Your task to perform on an android device: open app "Mercado Libre" Image 0: 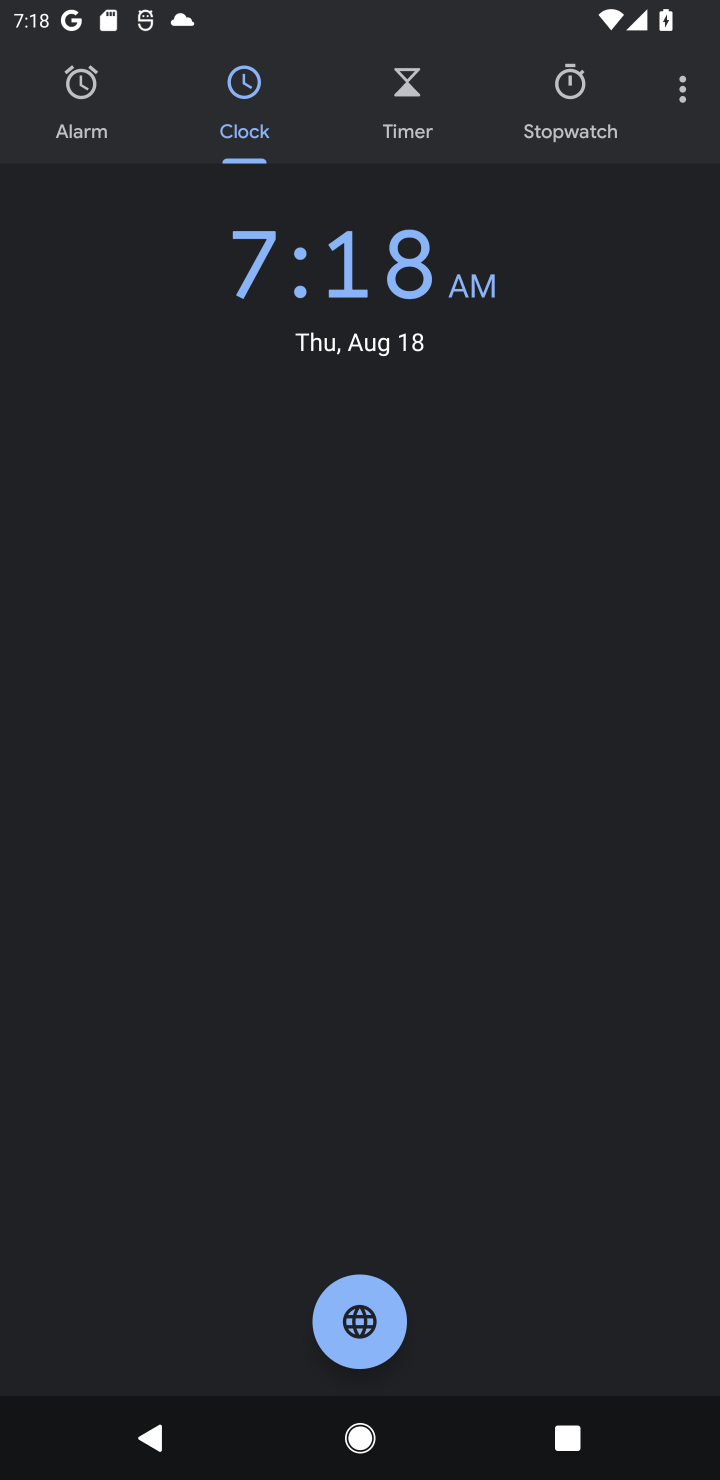
Step 0: press home button
Your task to perform on an android device: open app "Mercado Libre" Image 1: 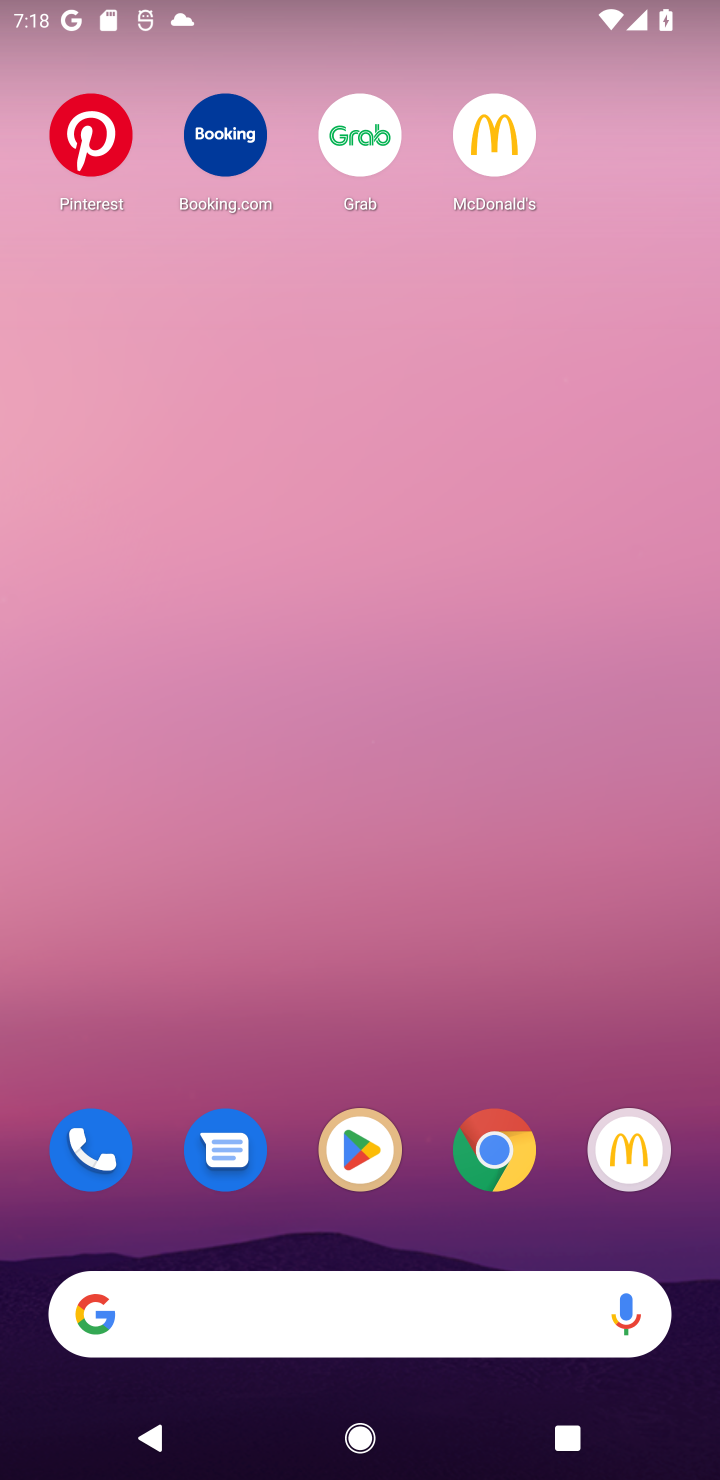
Step 1: drag from (330, 1233) to (272, 71)
Your task to perform on an android device: open app "Mercado Libre" Image 2: 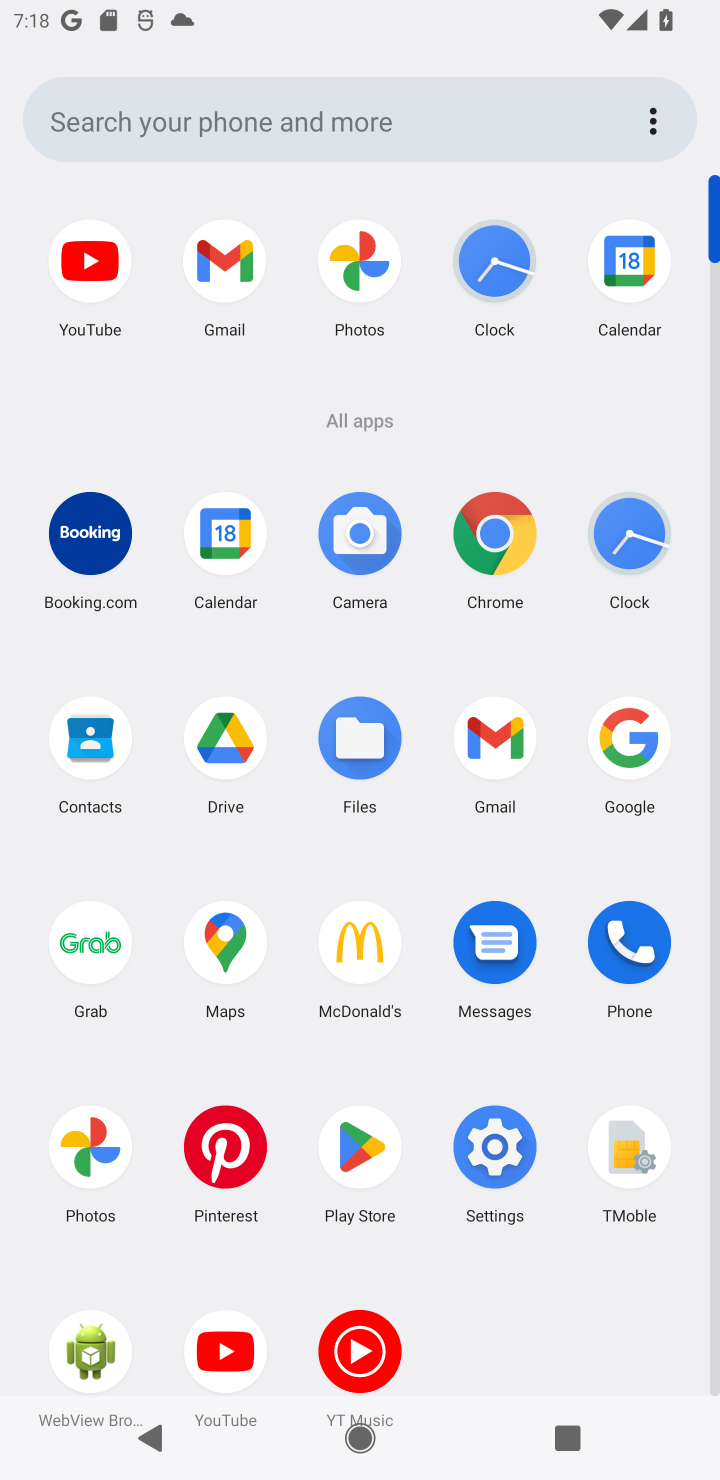
Step 2: click (375, 1168)
Your task to perform on an android device: open app "Mercado Libre" Image 3: 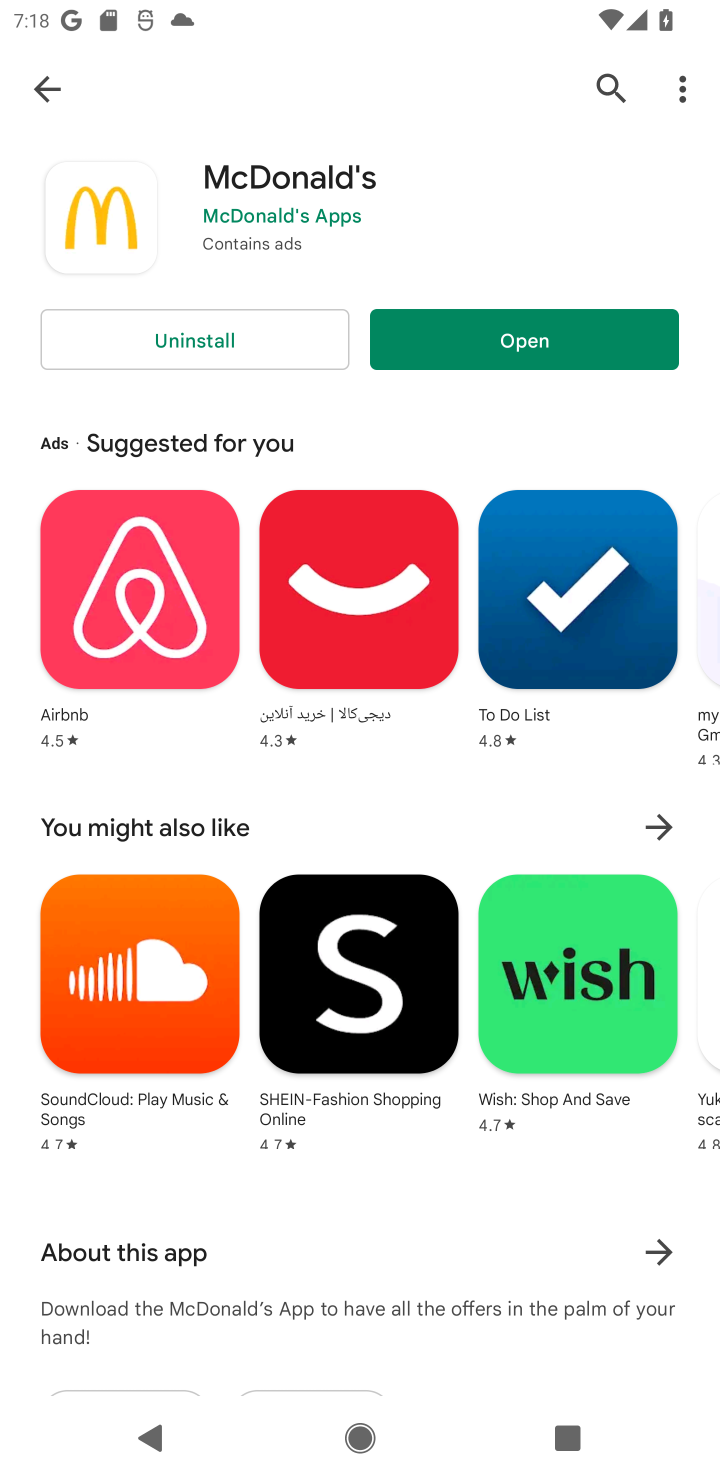
Step 3: click (55, 73)
Your task to perform on an android device: open app "Mercado Libre" Image 4: 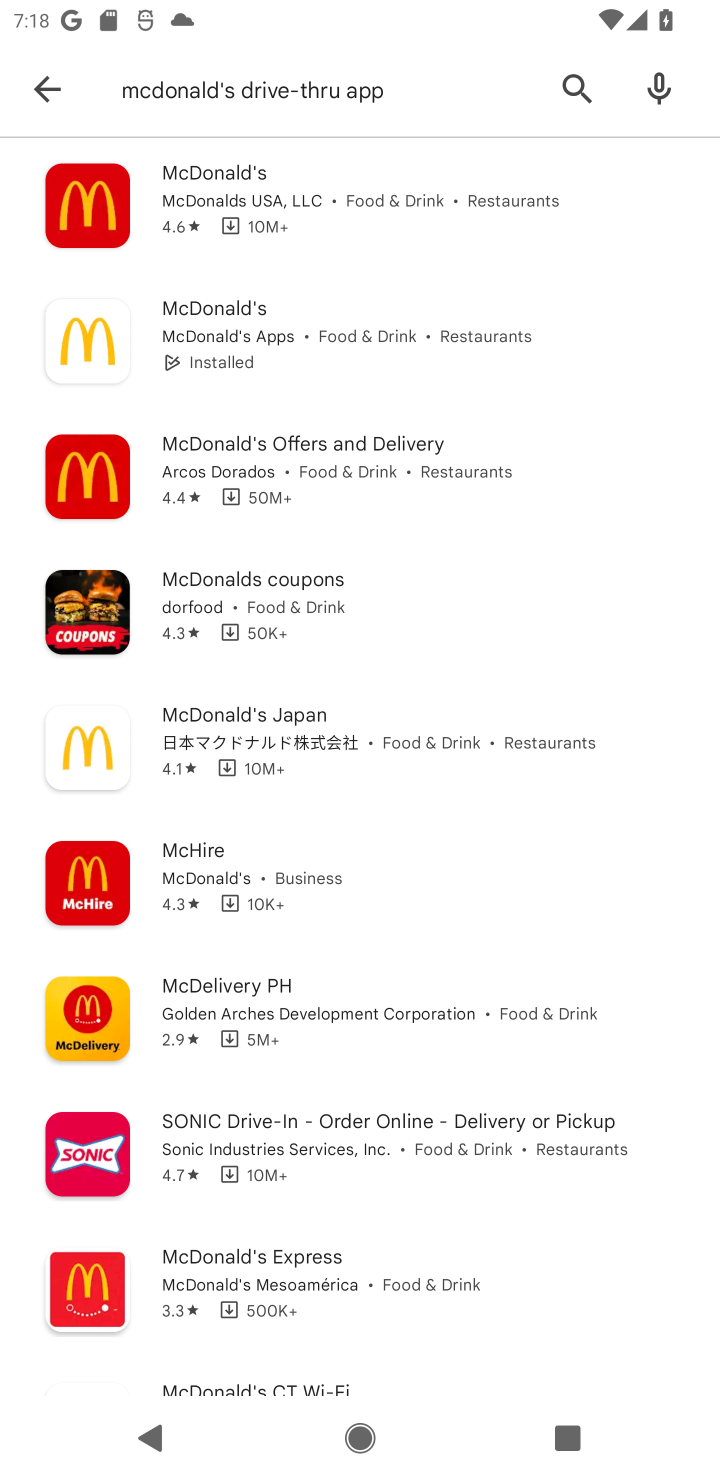
Step 4: click (51, 77)
Your task to perform on an android device: open app "Mercado Libre" Image 5: 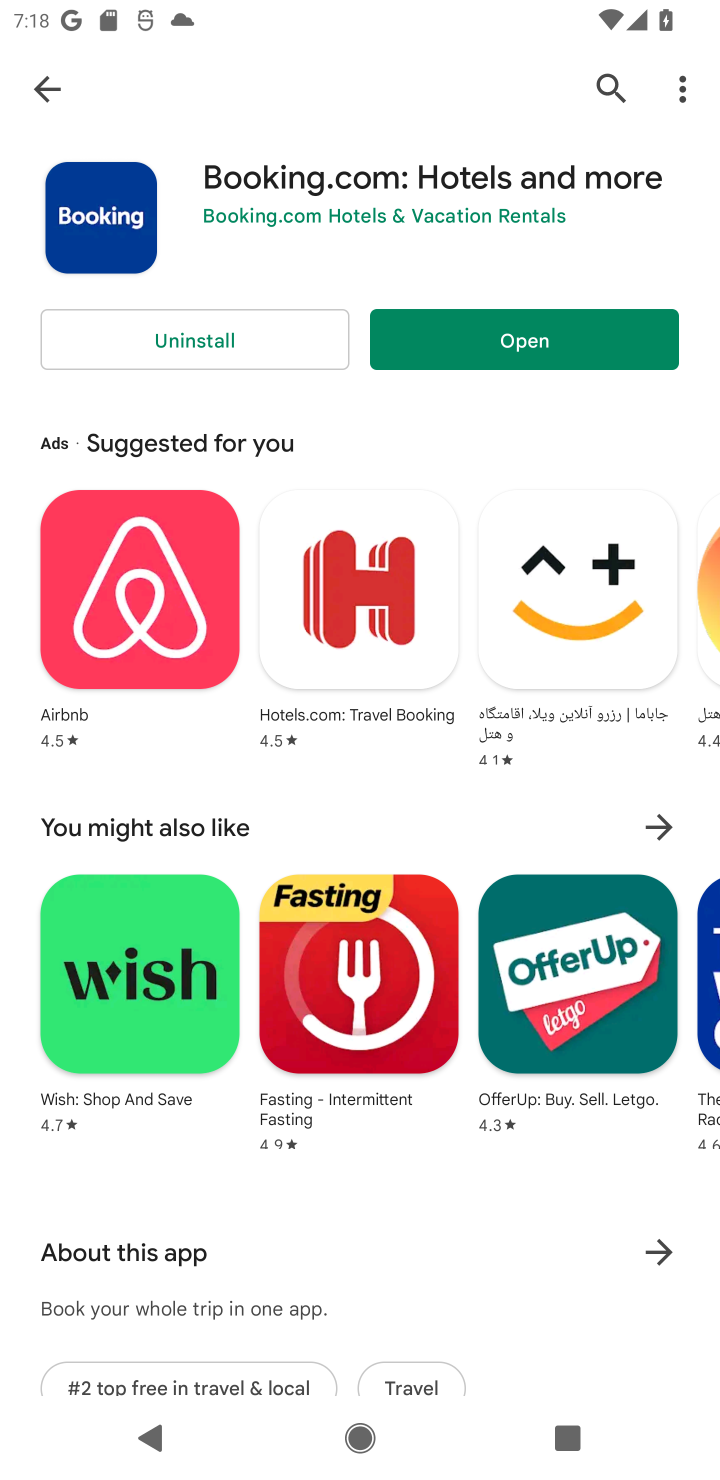
Step 5: click (46, 80)
Your task to perform on an android device: open app "Mercado Libre" Image 6: 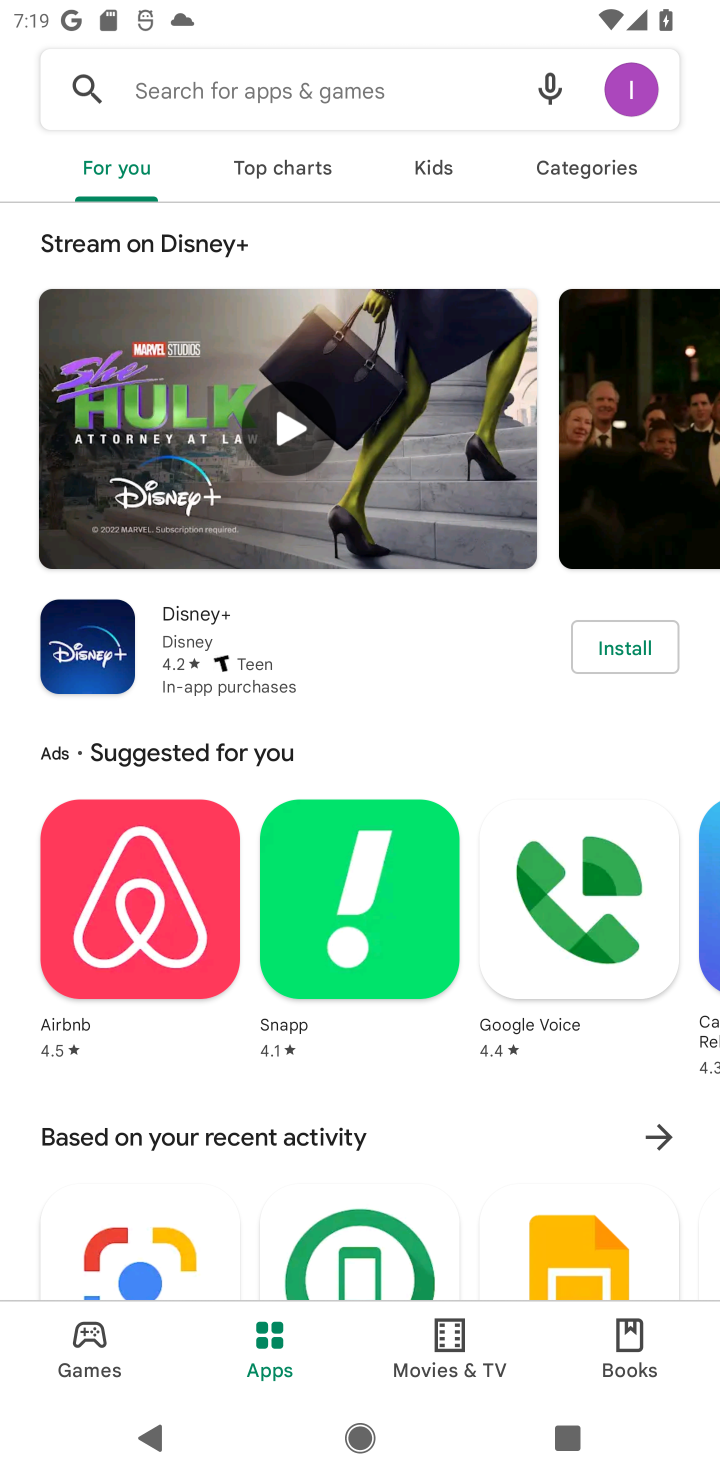
Step 6: click (199, 94)
Your task to perform on an android device: open app "Mercado Libre" Image 7: 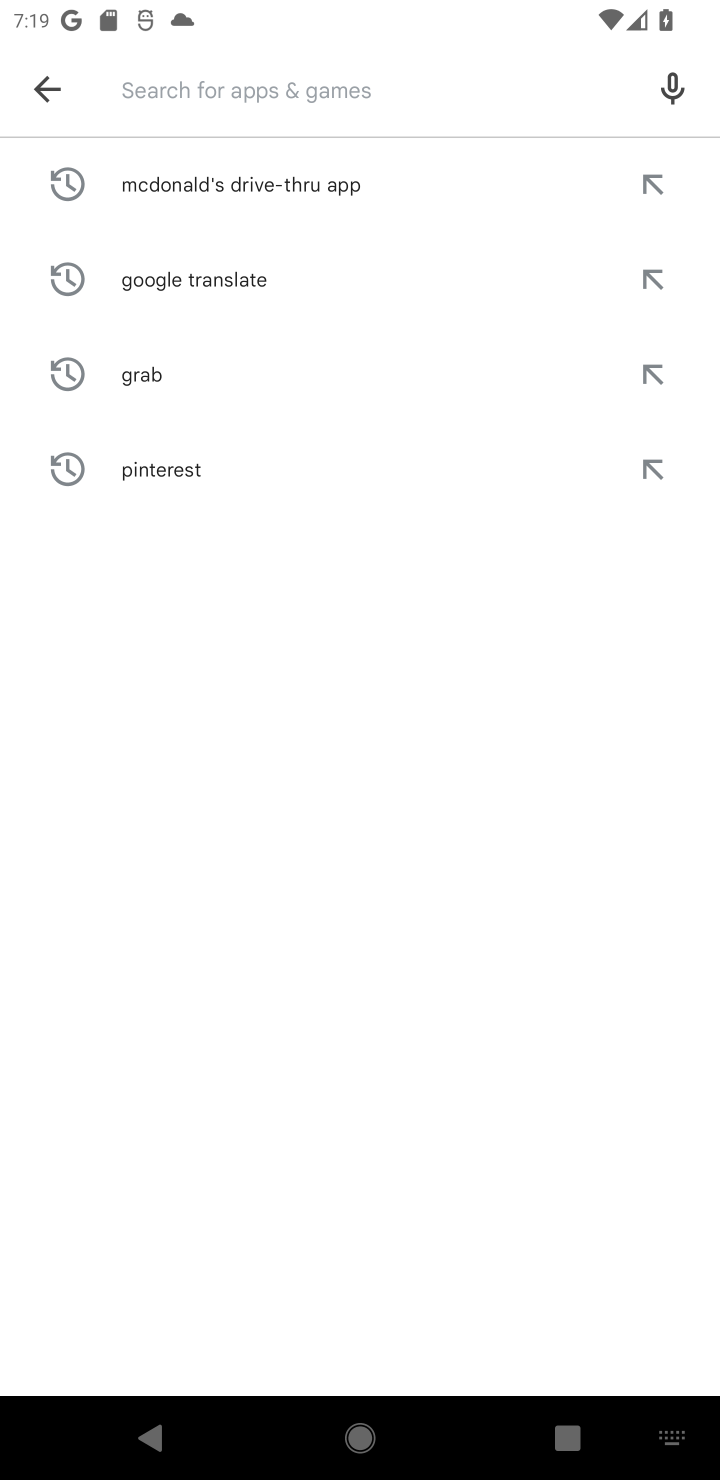
Step 7: type "Mercado Libre"
Your task to perform on an android device: open app "Mercado Libre" Image 8: 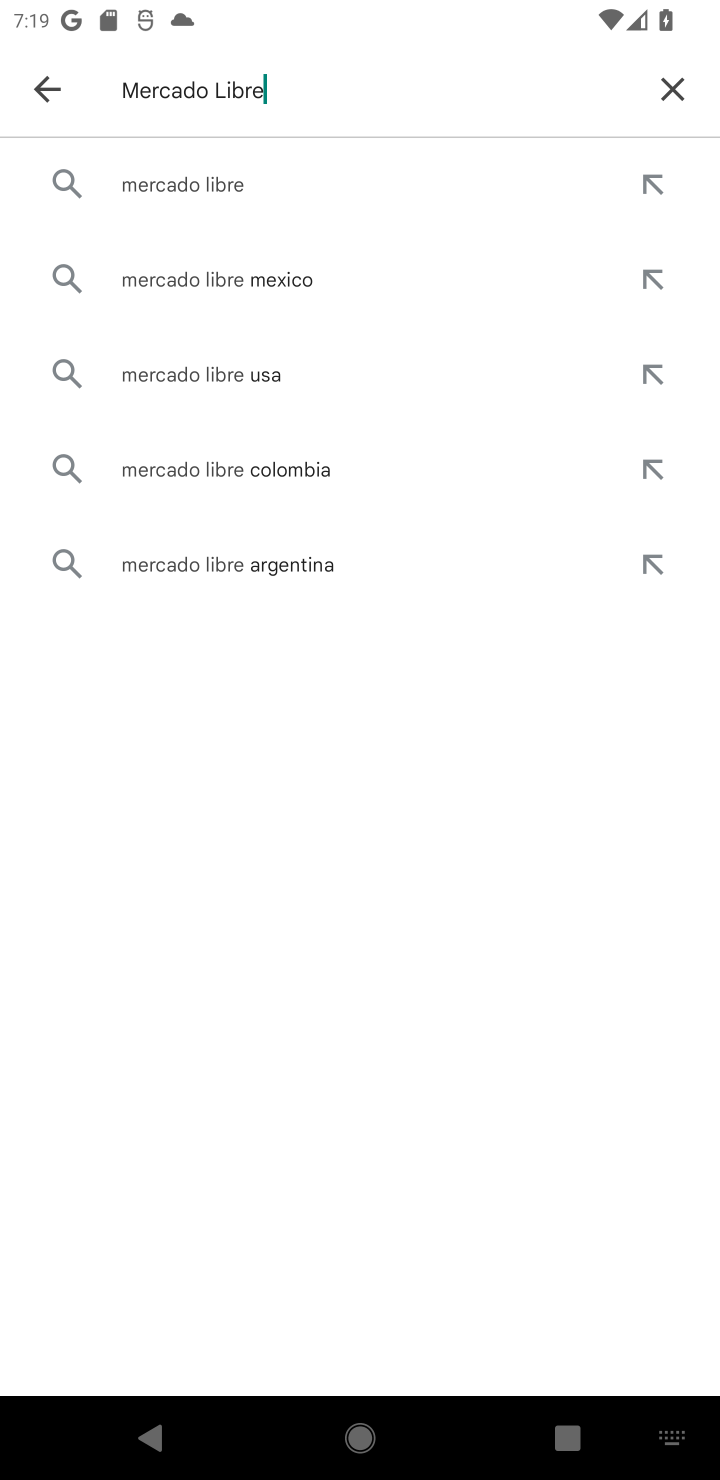
Step 8: click (176, 168)
Your task to perform on an android device: open app "Mercado Libre" Image 9: 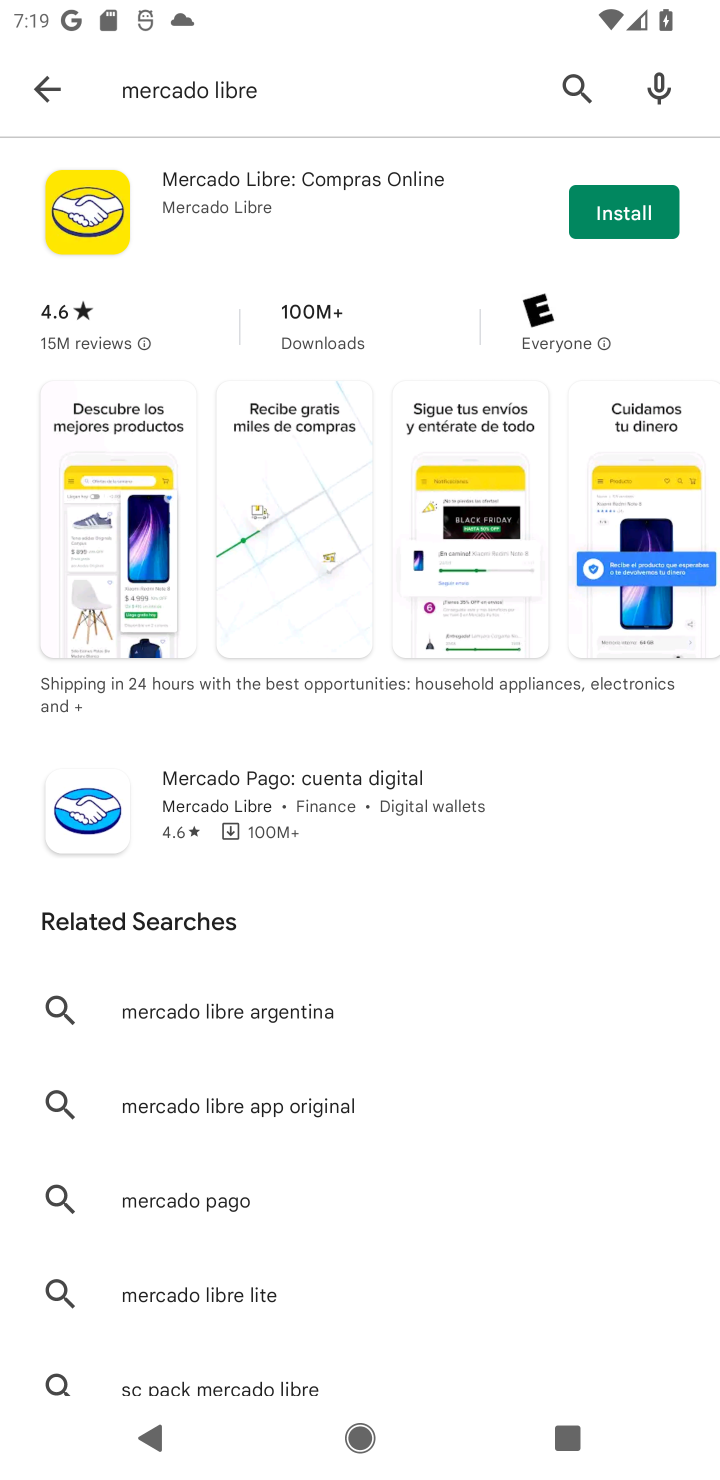
Step 9: click (614, 221)
Your task to perform on an android device: open app "Mercado Libre" Image 10: 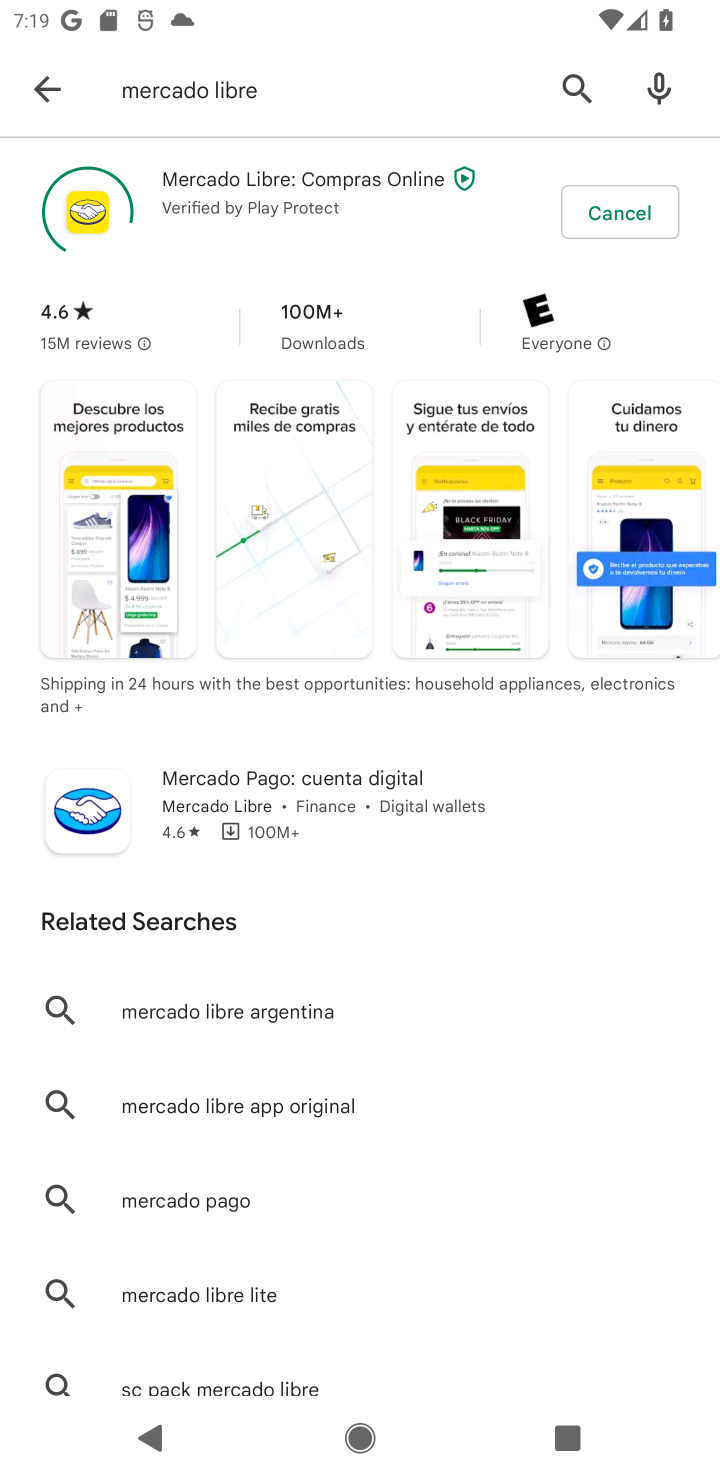
Step 10: click (668, 187)
Your task to perform on an android device: open app "Mercado Libre" Image 11: 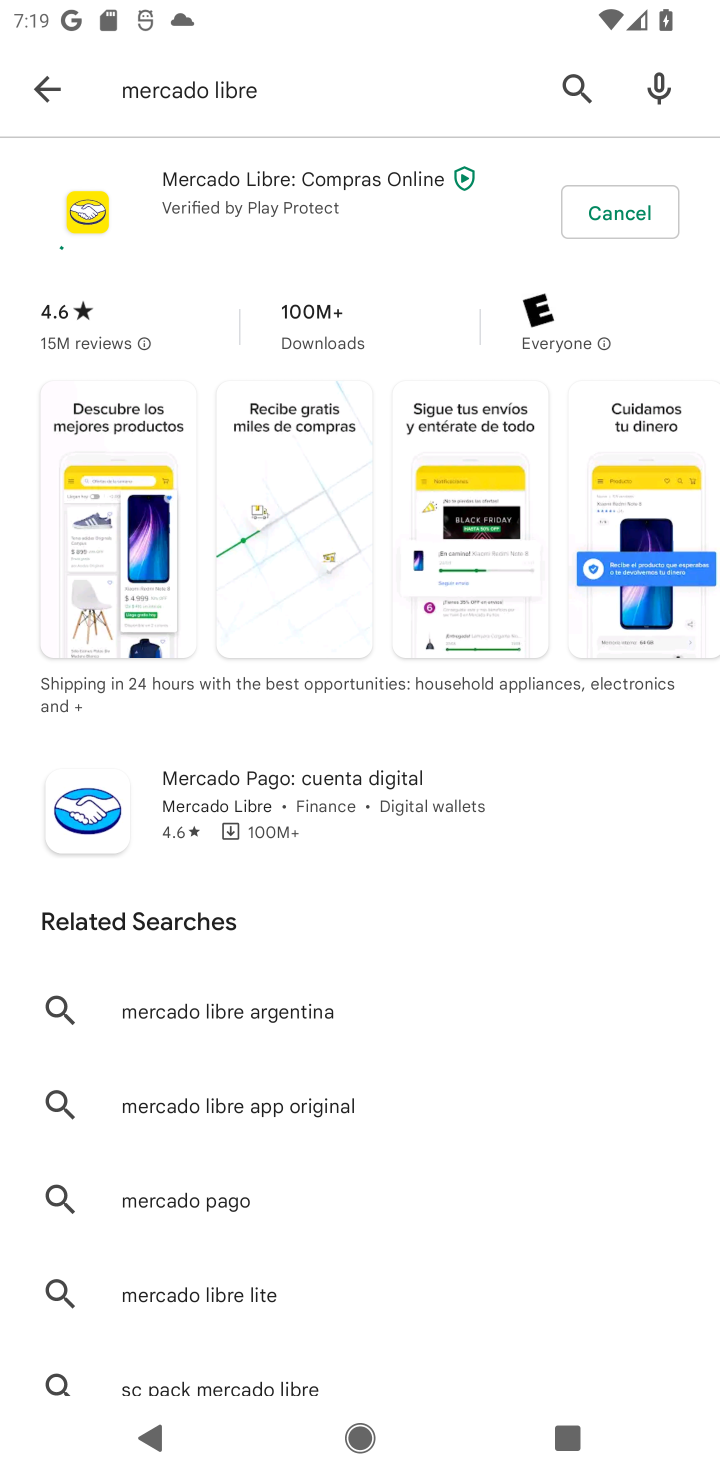
Step 11: click (633, 208)
Your task to perform on an android device: open app "Mercado Libre" Image 12: 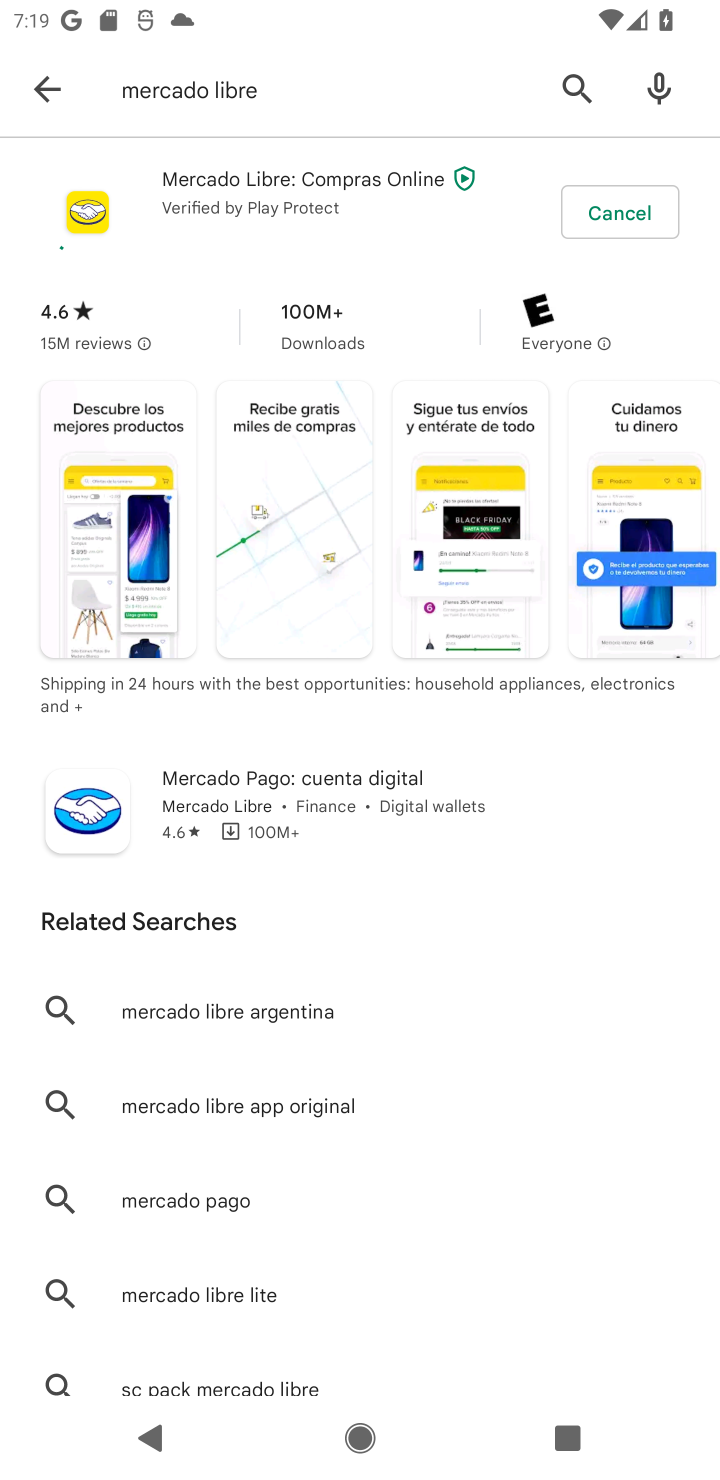
Step 12: task complete